Your task to perform on an android device: Check the weather Image 0: 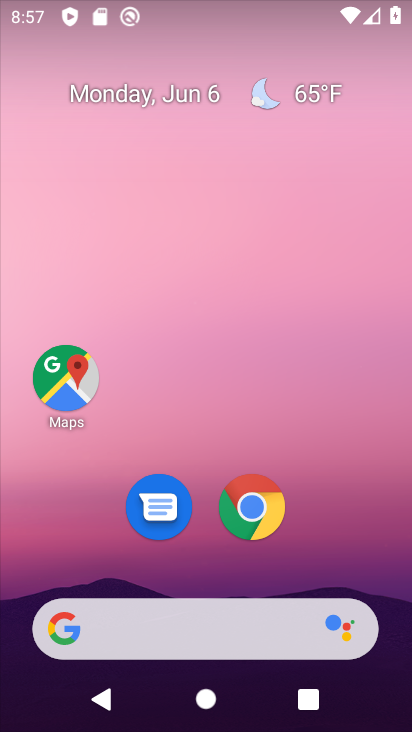
Step 0: click (246, 493)
Your task to perform on an android device: Check the weather Image 1: 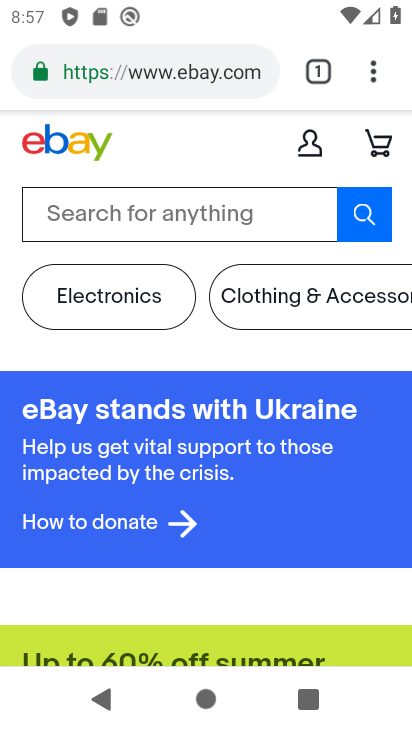
Step 1: click (370, 61)
Your task to perform on an android device: Check the weather Image 2: 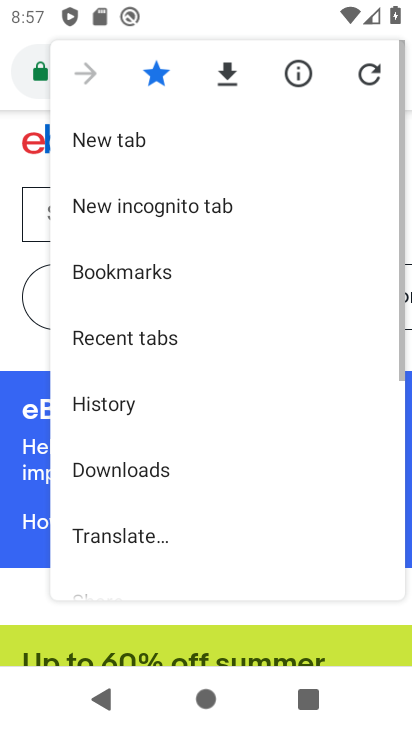
Step 2: click (147, 131)
Your task to perform on an android device: Check the weather Image 3: 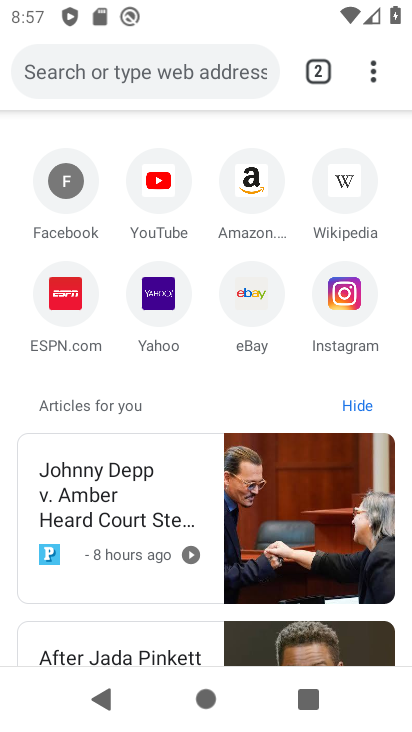
Step 3: click (212, 57)
Your task to perform on an android device: Check the weather Image 4: 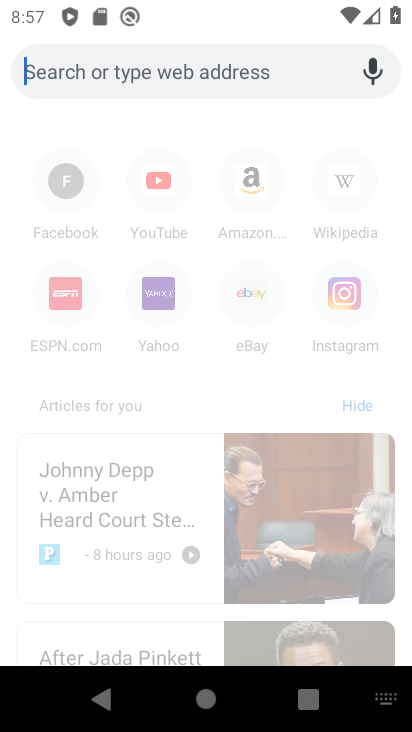
Step 4: type "Check the weather"
Your task to perform on an android device: Check the weather Image 5: 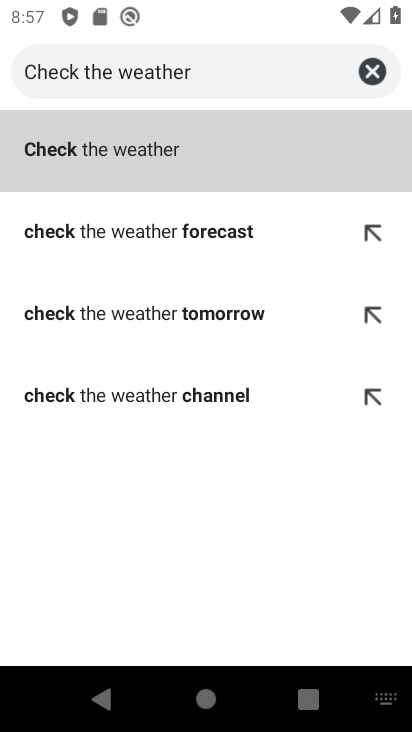
Step 5: click (157, 139)
Your task to perform on an android device: Check the weather Image 6: 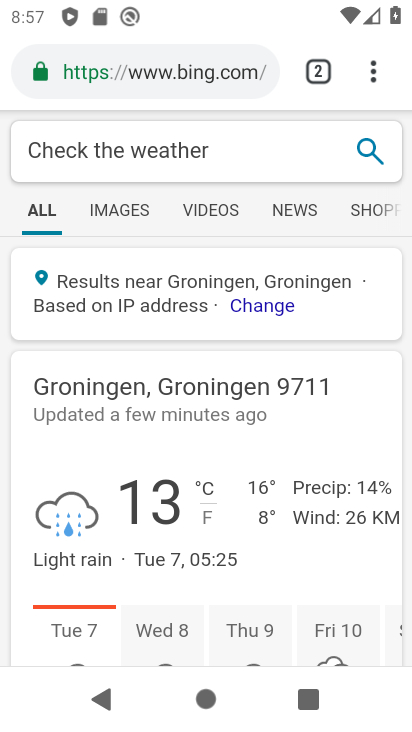
Step 6: task complete